Your task to perform on an android device: Go to Wikipedia Image 0: 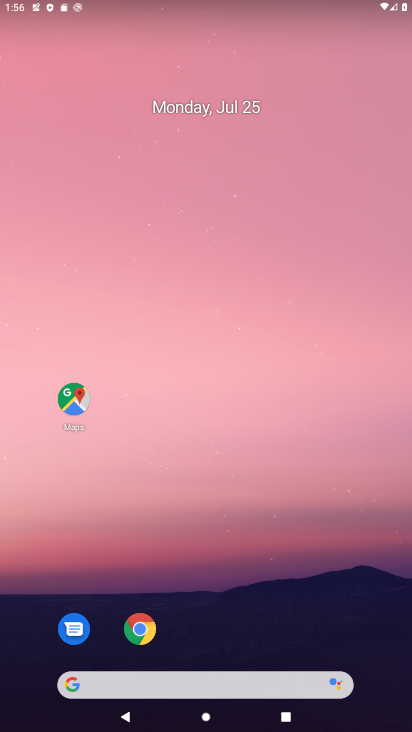
Step 0: drag from (178, 501) to (213, 122)
Your task to perform on an android device: Go to Wikipedia Image 1: 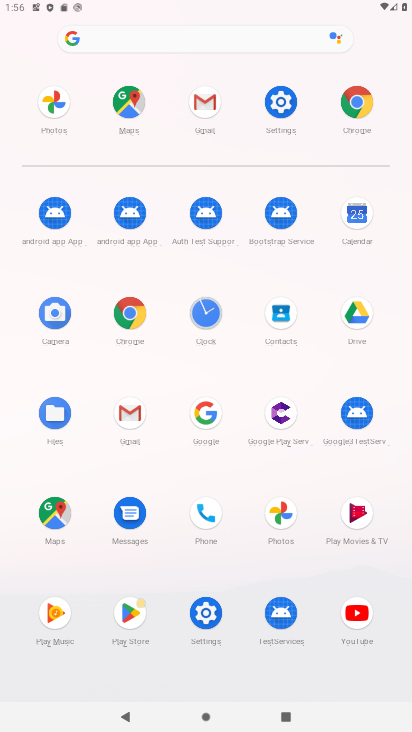
Step 1: drag from (225, 496) to (225, 106)
Your task to perform on an android device: Go to Wikipedia Image 2: 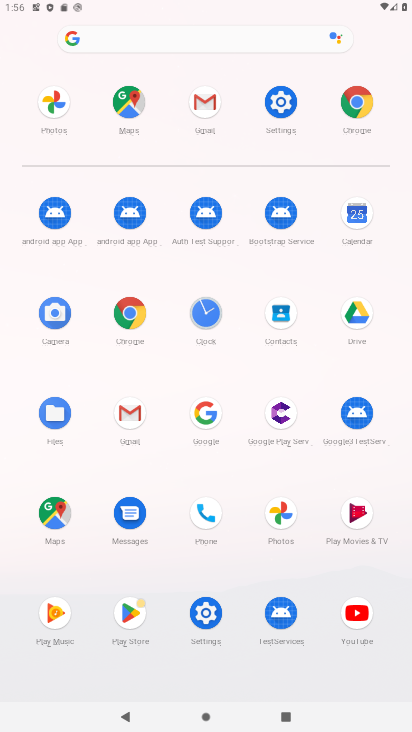
Step 2: click (125, 314)
Your task to perform on an android device: Go to Wikipedia Image 3: 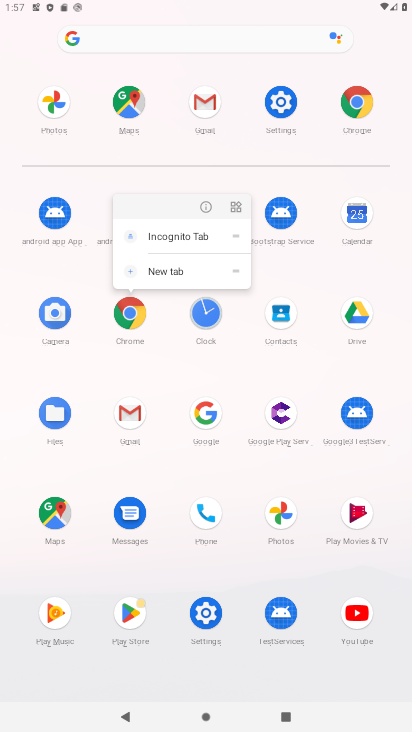
Step 3: click (203, 210)
Your task to perform on an android device: Go to Wikipedia Image 4: 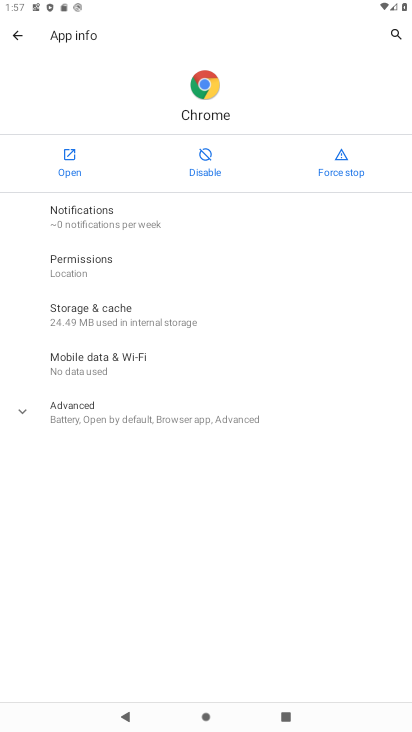
Step 4: click (75, 155)
Your task to perform on an android device: Go to Wikipedia Image 5: 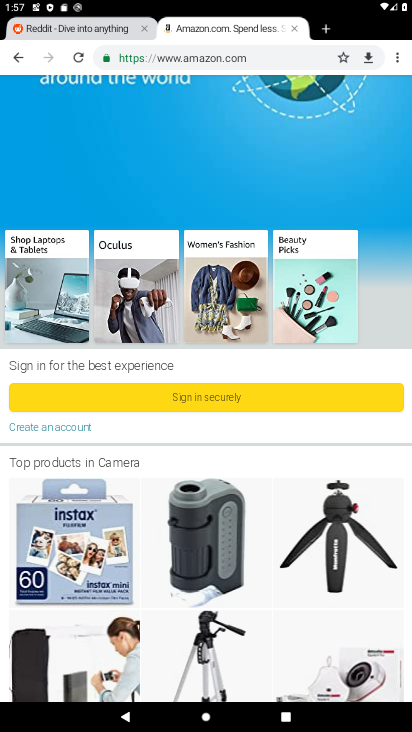
Step 5: click (328, 36)
Your task to perform on an android device: Go to Wikipedia Image 6: 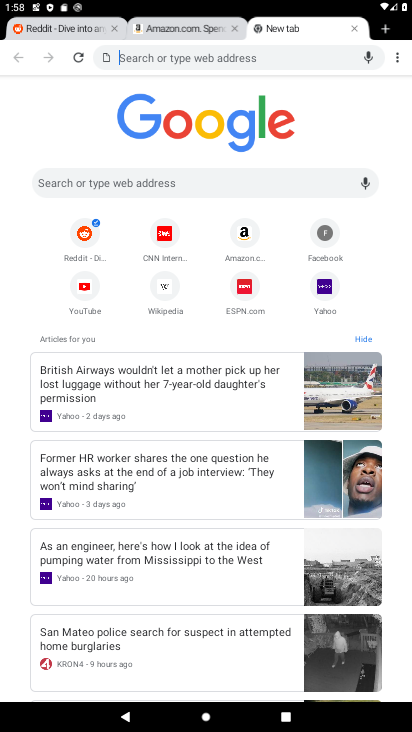
Step 6: type "wiki"
Your task to perform on an android device: Go to Wikipedia Image 7: 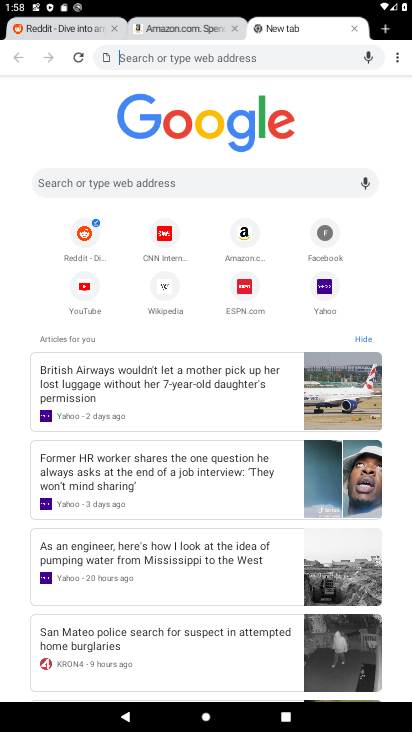
Step 7: click (256, 468)
Your task to perform on an android device: Go to Wikipedia Image 8: 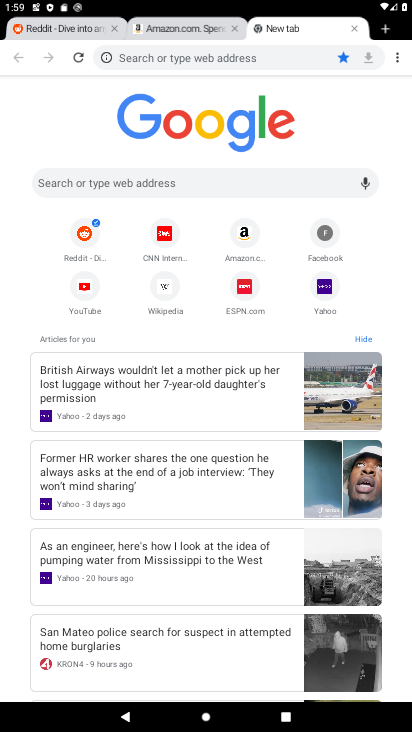
Step 8: drag from (241, 680) to (297, 299)
Your task to perform on an android device: Go to Wikipedia Image 9: 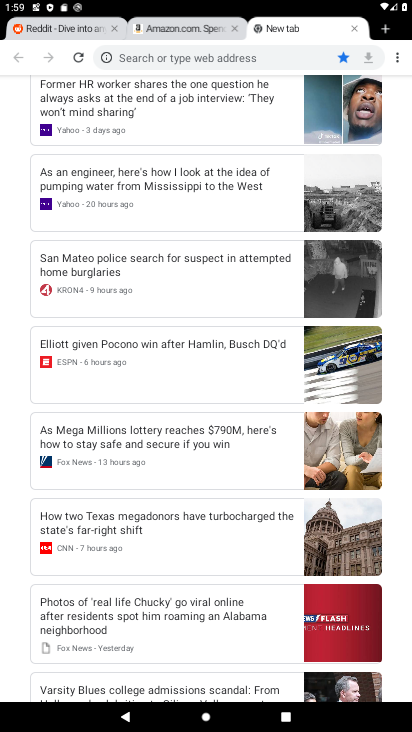
Step 9: drag from (179, 227) to (230, 652)
Your task to perform on an android device: Go to Wikipedia Image 10: 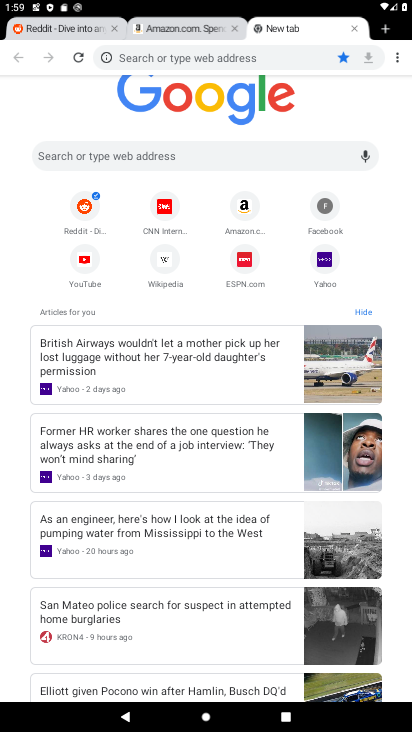
Step 10: click (176, 52)
Your task to perform on an android device: Go to Wikipedia Image 11: 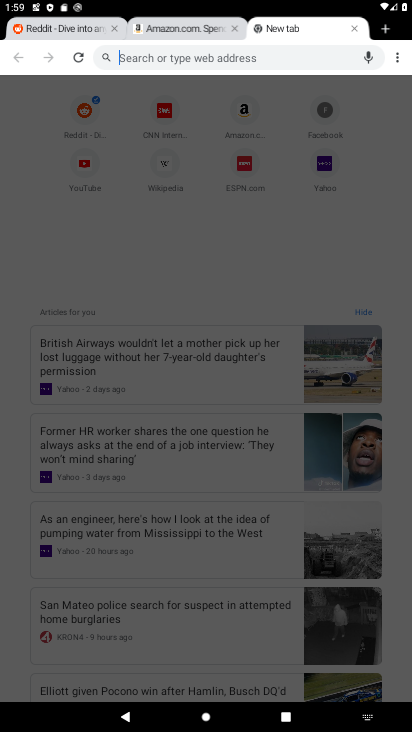
Step 11: type "wikipedia"
Your task to perform on an android device: Go to Wikipedia Image 12: 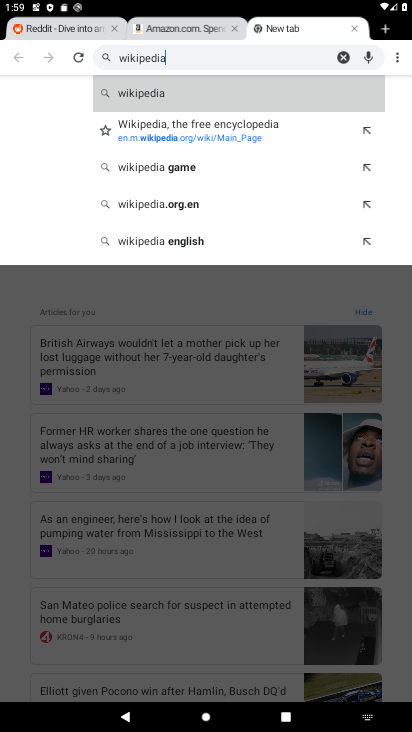
Step 12: click (149, 98)
Your task to perform on an android device: Go to Wikipedia Image 13: 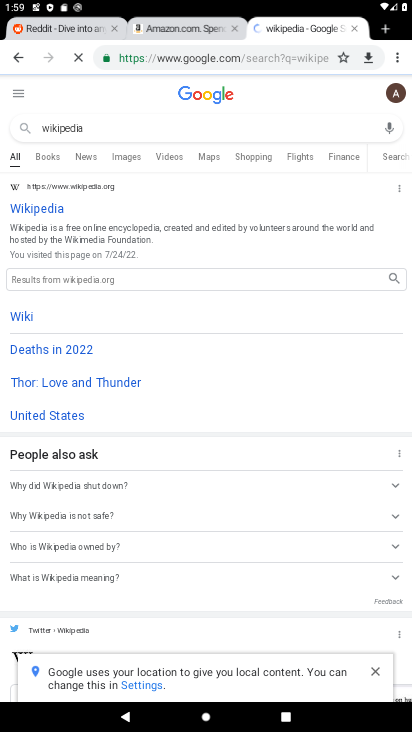
Step 13: drag from (281, 363) to (289, 163)
Your task to perform on an android device: Go to Wikipedia Image 14: 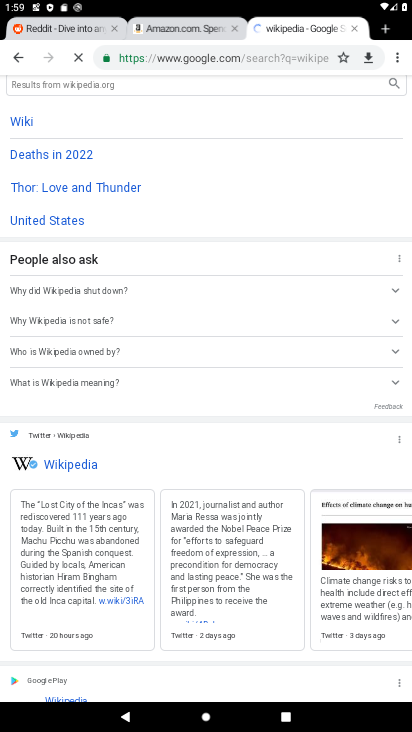
Step 14: drag from (173, 352) to (222, 655)
Your task to perform on an android device: Go to Wikipedia Image 15: 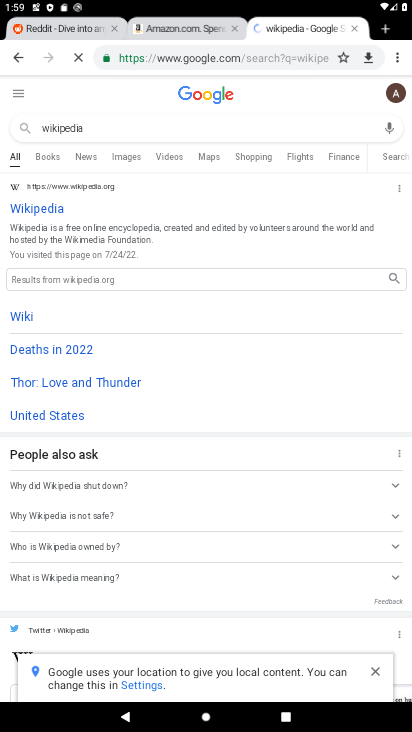
Step 15: drag from (210, 417) to (317, 731)
Your task to perform on an android device: Go to Wikipedia Image 16: 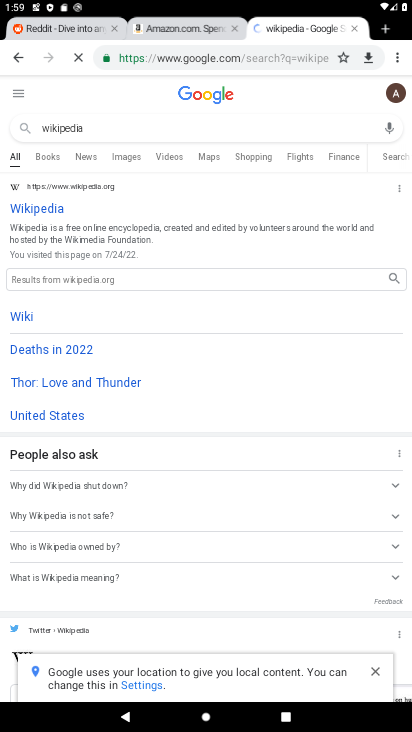
Step 16: click (46, 211)
Your task to perform on an android device: Go to Wikipedia Image 17: 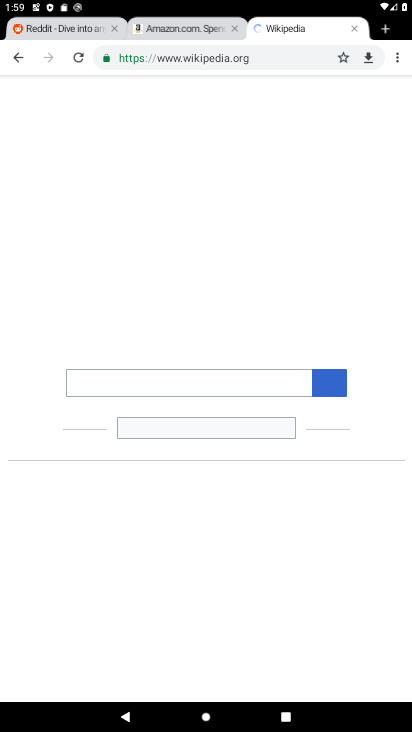
Step 17: task complete